Your task to perform on an android device: Is it going to rain today? Image 0: 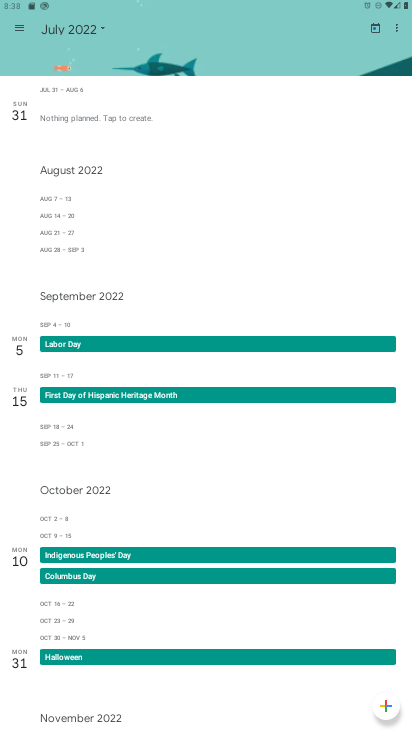
Step 0: press home button
Your task to perform on an android device: Is it going to rain today? Image 1: 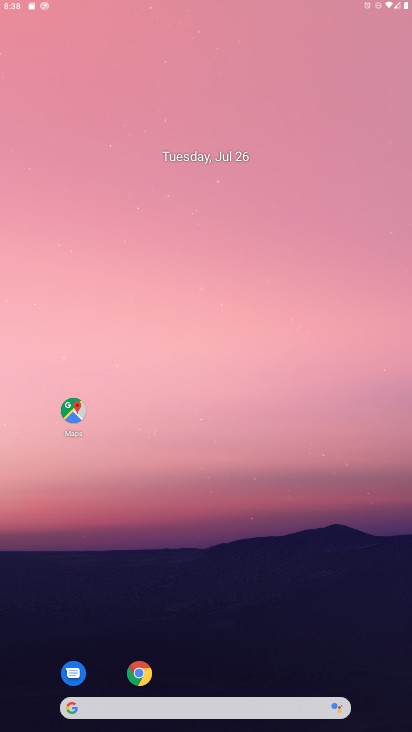
Step 1: drag from (396, 682) to (198, 25)
Your task to perform on an android device: Is it going to rain today? Image 2: 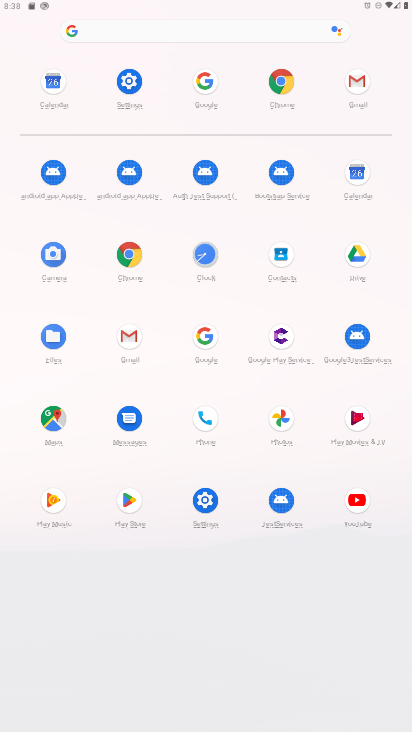
Step 2: click (199, 339)
Your task to perform on an android device: Is it going to rain today? Image 3: 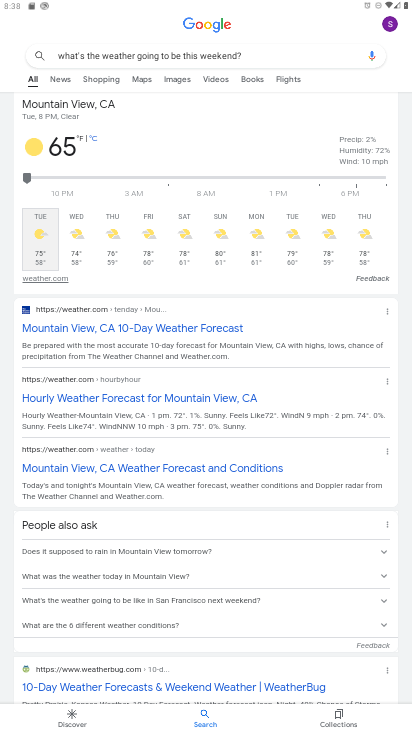
Step 3: press back button
Your task to perform on an android device: Is it going to rain today? Image 4: 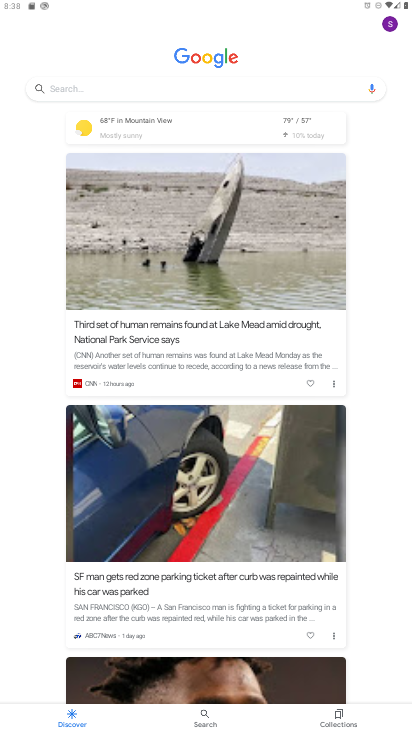
Step 4: click (75, 94)
Your task to perform on an android device: Is it going to rain today? Image 5: 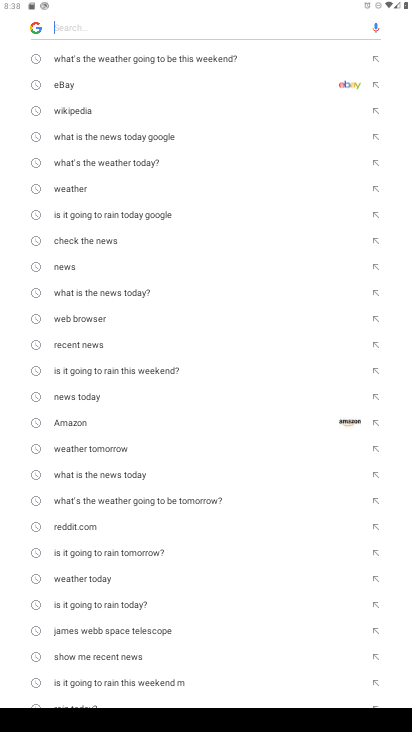
Step 5: type "Is it going to rain today?"
Your task to perform on an android device: Is it going to rain today? Image 6: 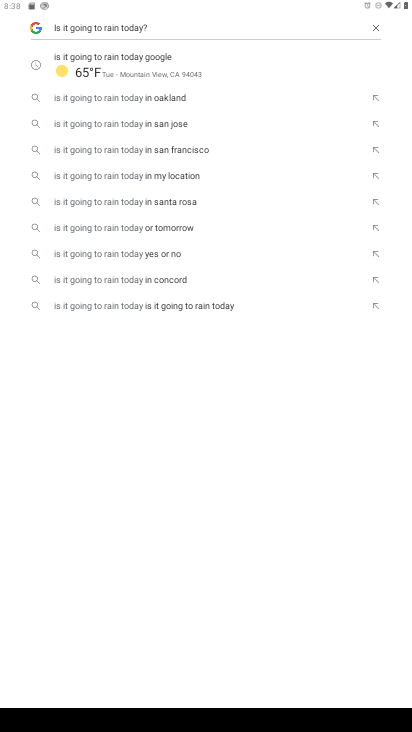
Step 6: click (109, 63)
Your task to perform on an android device: Is it going to rain today? Image 7: 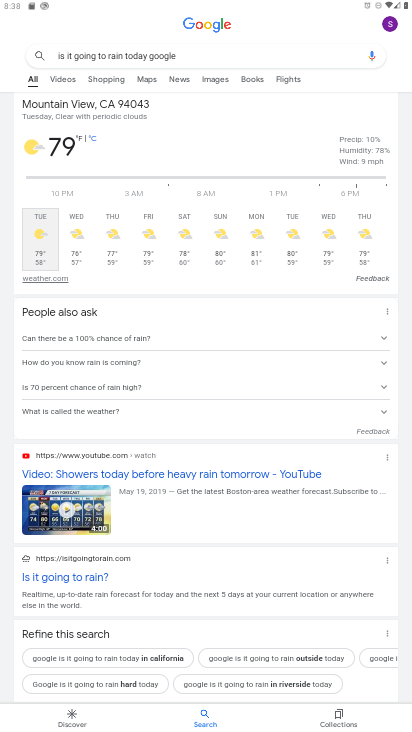
Step 7: task complete